Your task to perform on an android device: What is the recent news? Image 0: 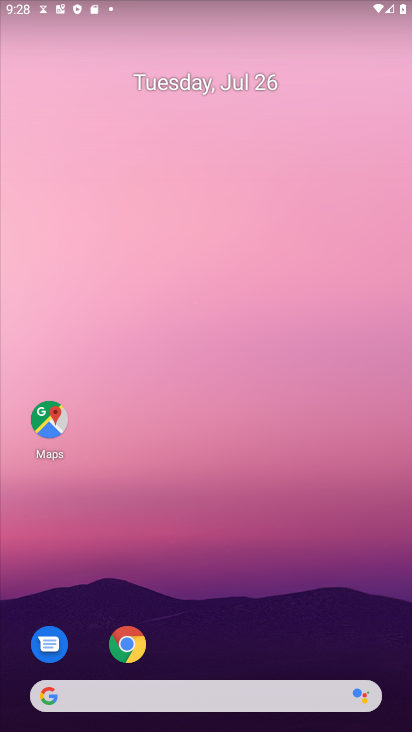
Step 0: click (187, 695)
Your task to perform on an android device: What is the recent news? Image 1: 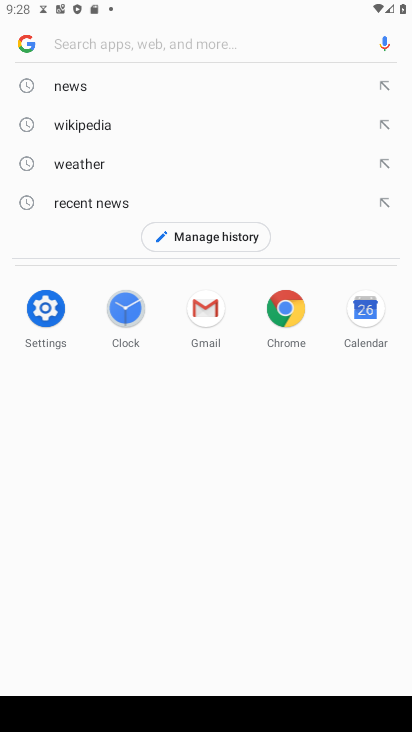
Step 1: click (93, 211)
Your task to perform on an android device: What is the recent news? Image 2: 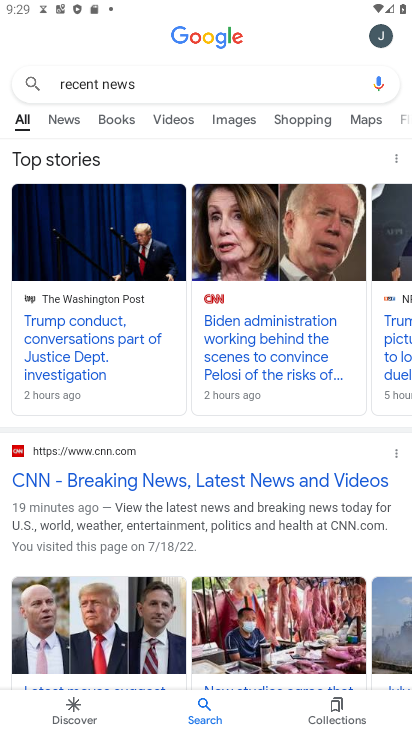
Step 2: task complete